Your task to perform on an android device: add a contact Image 0: 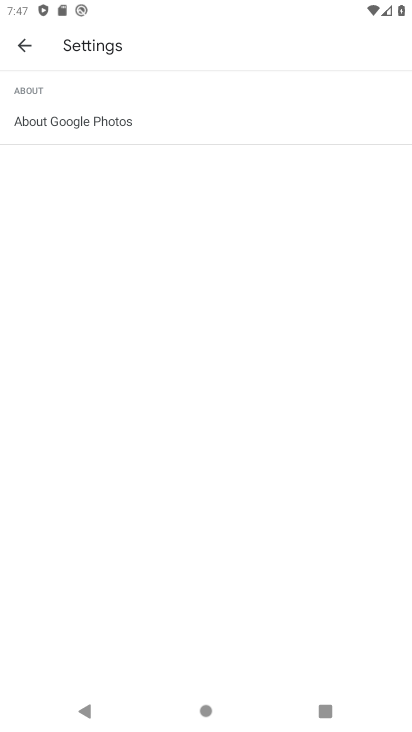
Step 0: press home button
Your task to perform on an android device: add a contact Image 1: 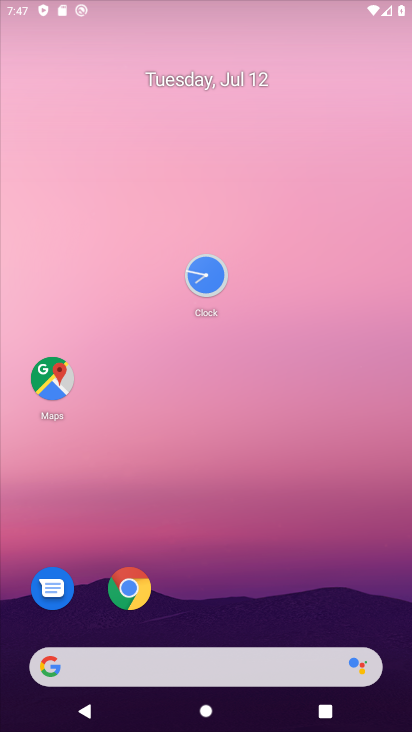
Step 1: drag from (266, 620) to (171, 53)
Your task to perform on an android device: add a contact Image 2: 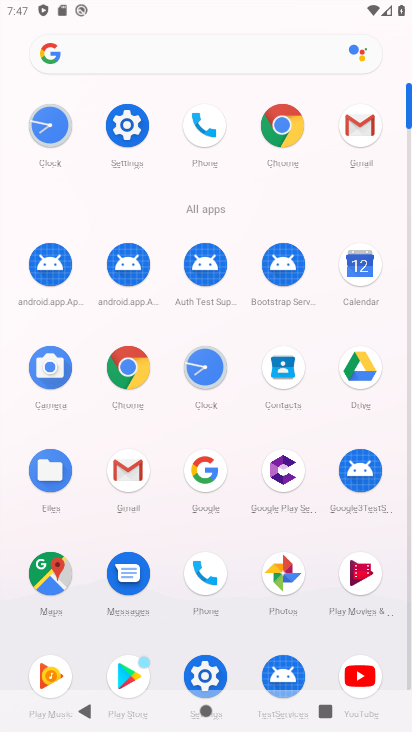
Step 2: click (210, 128)
Your task to perform on an android device: add a contact Image 3: 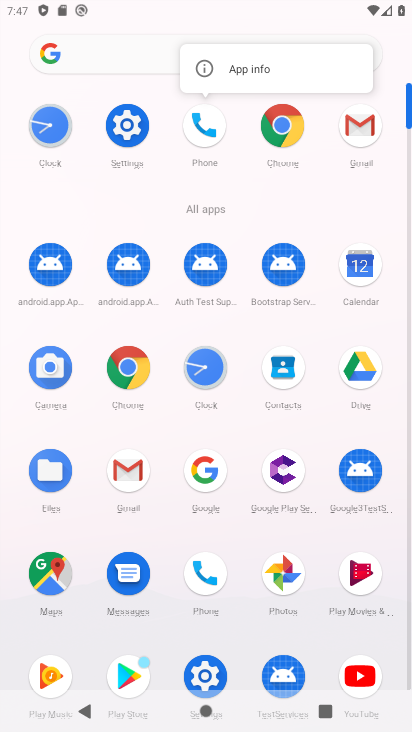
Step 3: click (205, 143)
Your task to perform on an android device: add a contact Image 4: 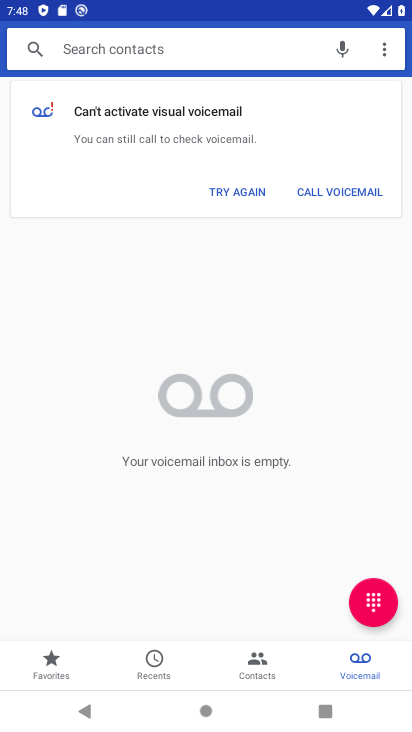
Step 4: click (238, 672)
Your task to perform on an android device: add a contact Image 5: 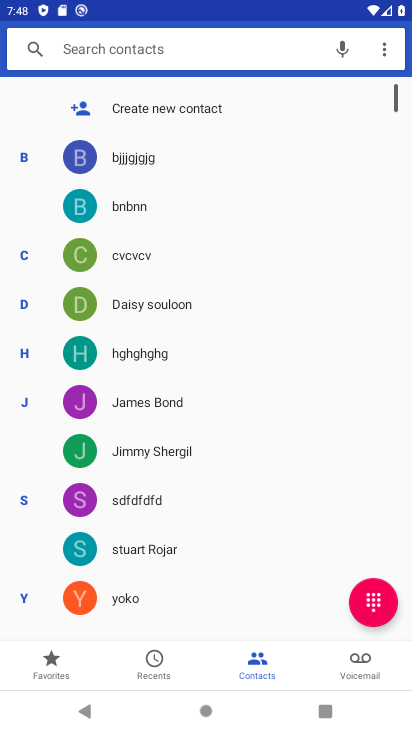
Step 5: click (98, 109)
Your task to perform on an android device: add a contact Image 6: 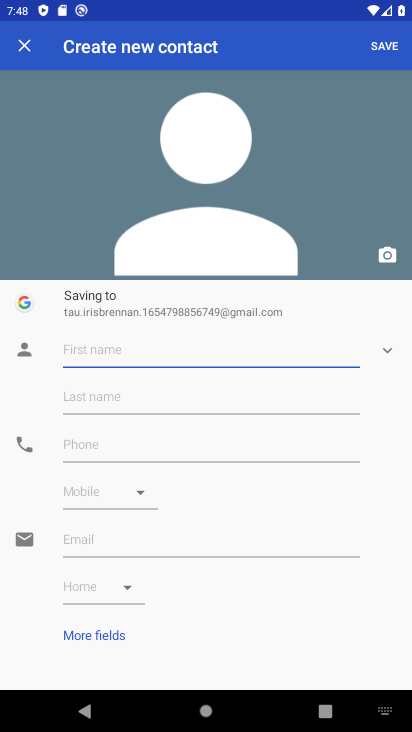
Step 6: type "yjjj"
Your task to perform on an android device: add a contact Image 7: 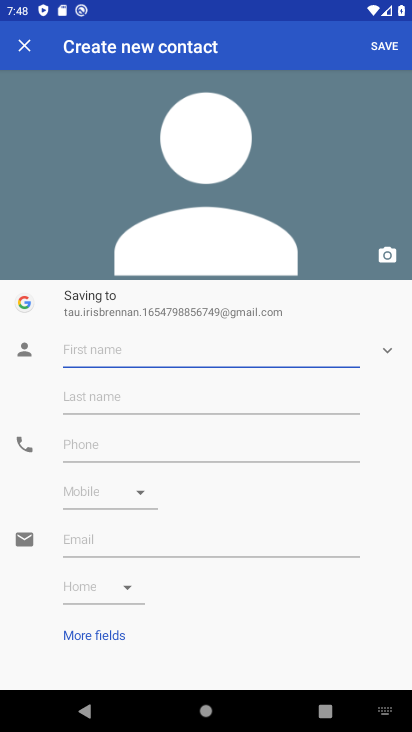
Step 7: click (140, 455)
Your task to perform on an android device: add a contact Image 8: 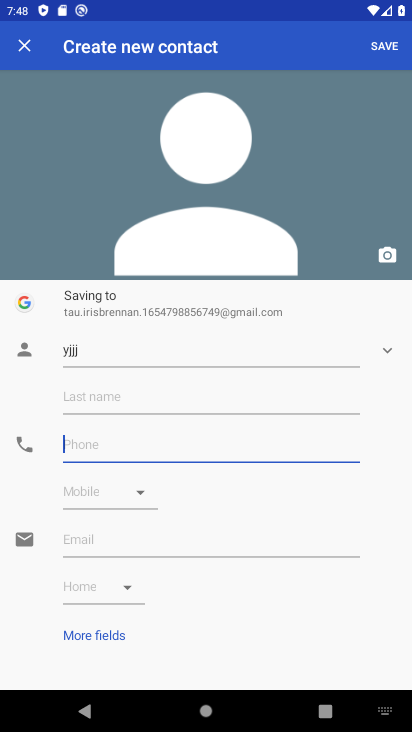
Step 8: type "56789876"
Your task to perform on an android device: add a contact Image 9: 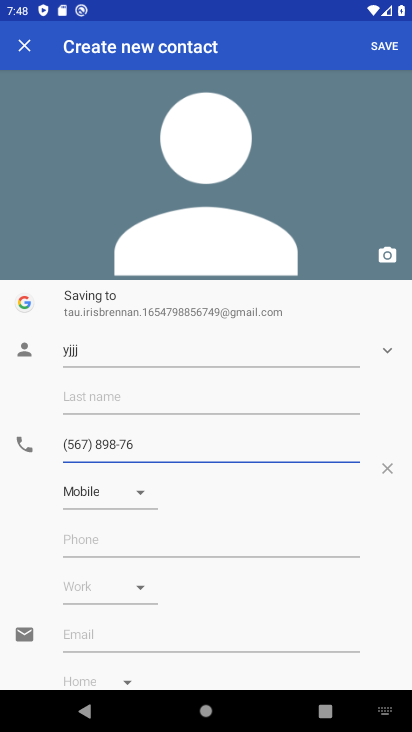
Step 9: click (379, 50)
Your task to perform on an android device: add a contact Image 10: 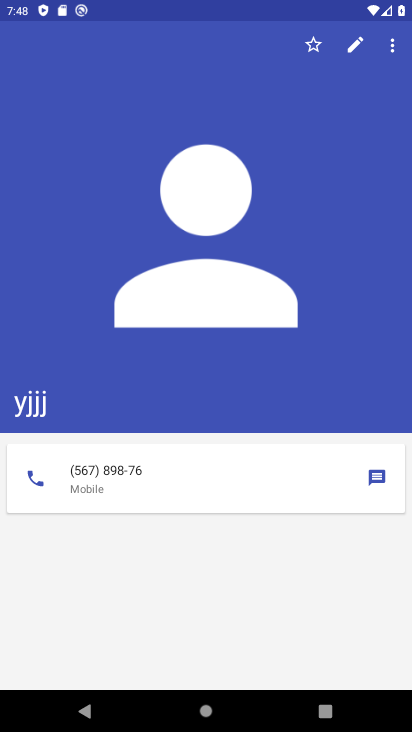
Step 10: task complete